Your task to perform on an android device: turn on bluetooth scan Image 0: 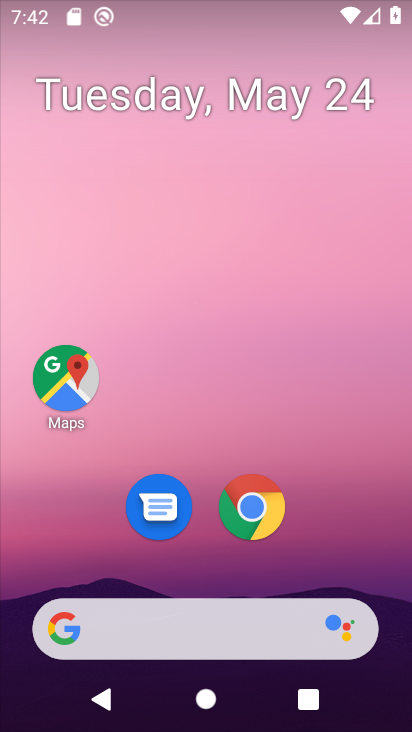
Step 0: drag from (212, 619) to (369, 63)
Your task to perform on an android device: turn on bluetooth scan Image 1: 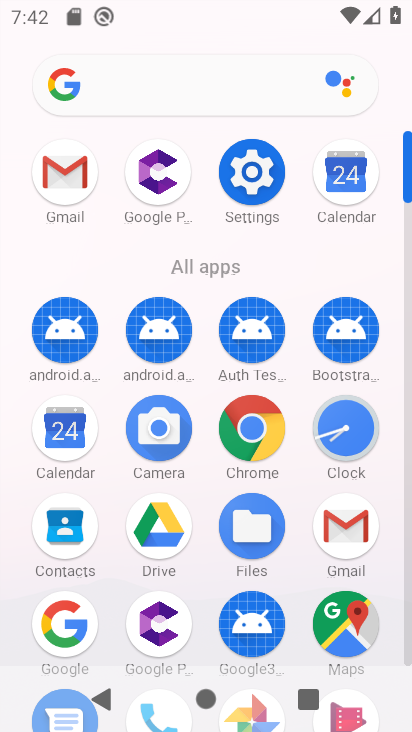
Step 1: click (266, 183)
Your task to perform on an android device: turn on bluetooth scan Image 2: 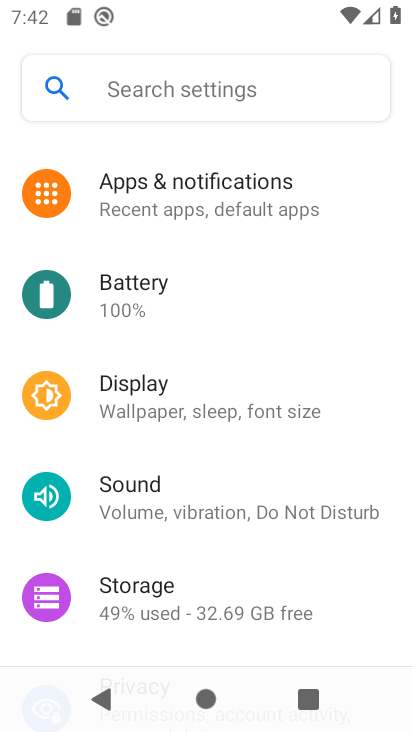
Step 2: drag from (254, 587) to (377, 93)
Your task to perform on an android device: turn on bluetooth scan Image 3: 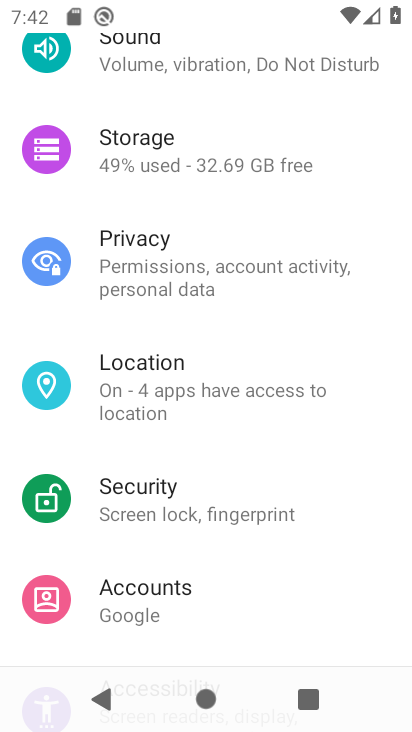
Step 3: click (165, 389)
Your task to perform on an android device: turn on bluetooth scan Image 4: 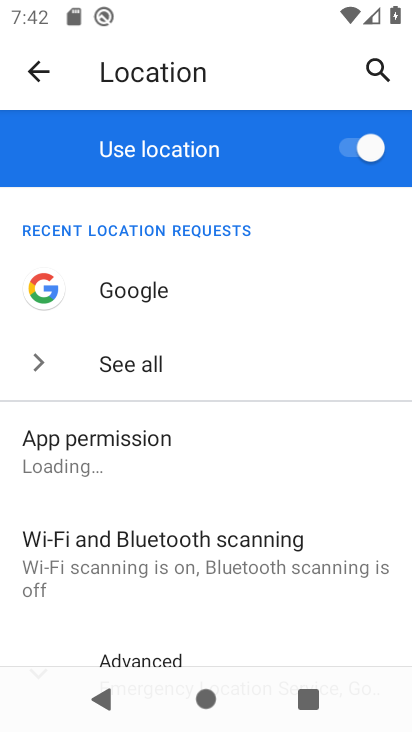
Step 4: drag from (258, 619) to (361, 298)
Your task to perform on an android device: turn on bluetooth scan Image 5: 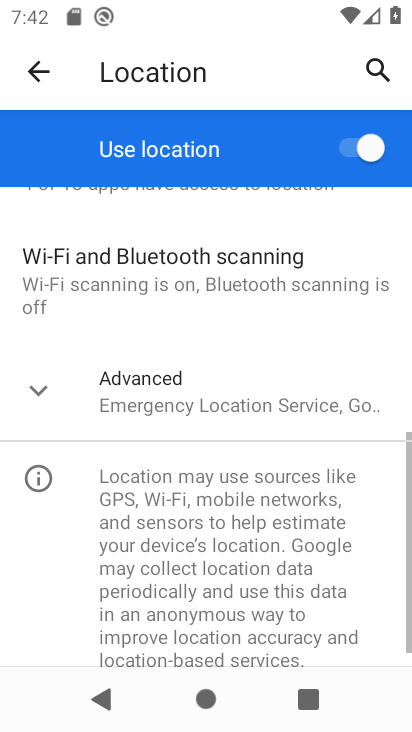
Step 5: click (93, 281)
Your task to perform on an android device: turn on bluetooth scan Image 6: 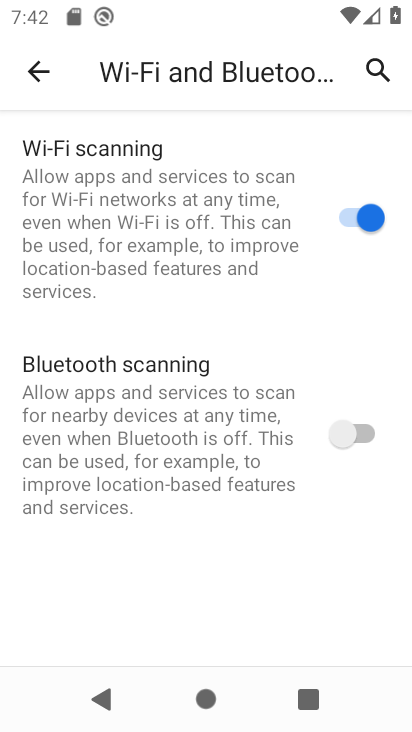
Step 6: click (361, 432)
Your task to perform on an android device: turn on bluetooth scan Image 7: 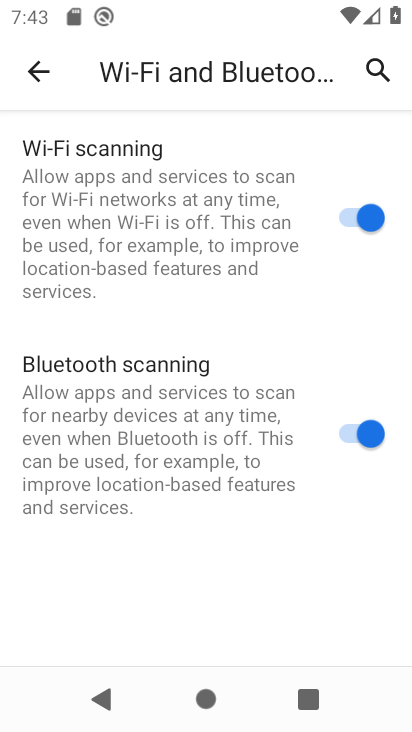
Step 7: task complete